Your task to perform on an android device: Go to eBay Image 0: 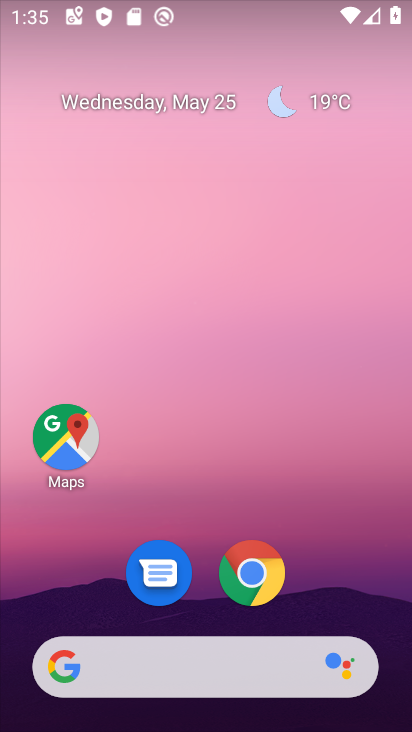
Step 0: click (252, 570)
Your task to perform on an android device: Go to eBay Image 1: 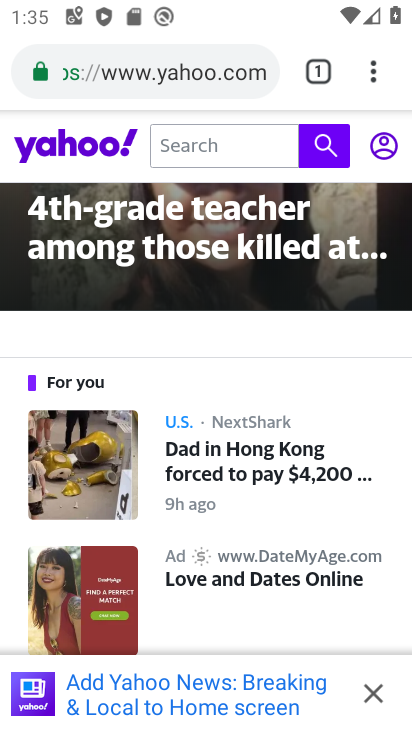
Step 1: click (220, 66)
Your task to perform on an android device: Go to eBay Image 2: 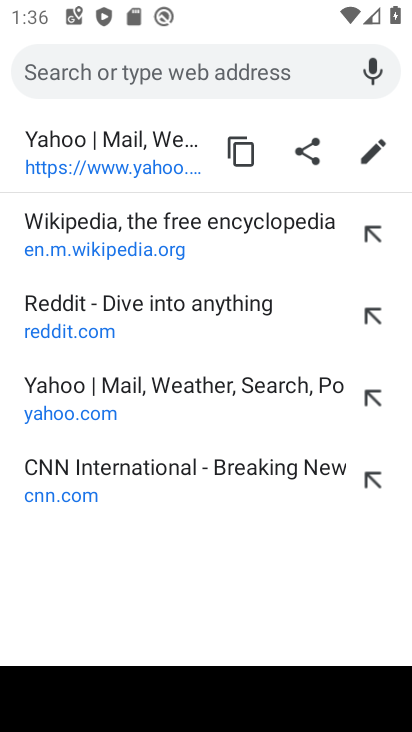
Step 2: type "ebay"
Your task to perform on an android device: Go to eBay Image 3: 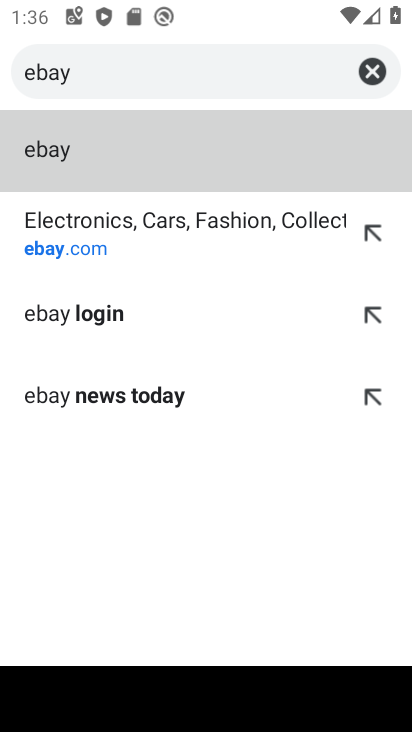
Step 3: click (68, 221)
Your task to perform on an android device: Go to eBay Image 4: 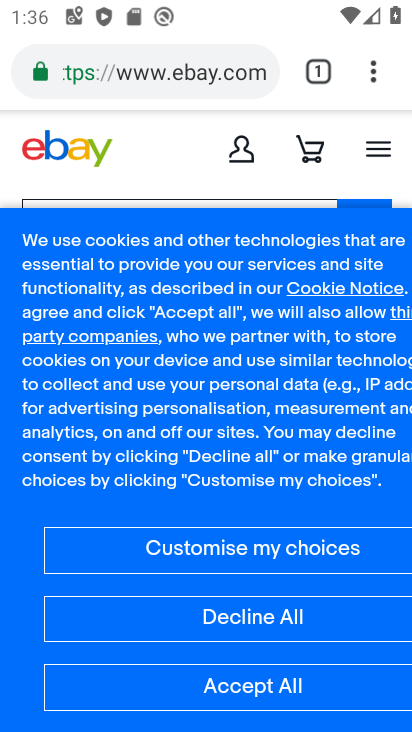
Step 4: task complete